Your task to perform on an android device: install app "Google Maps" Image 0: 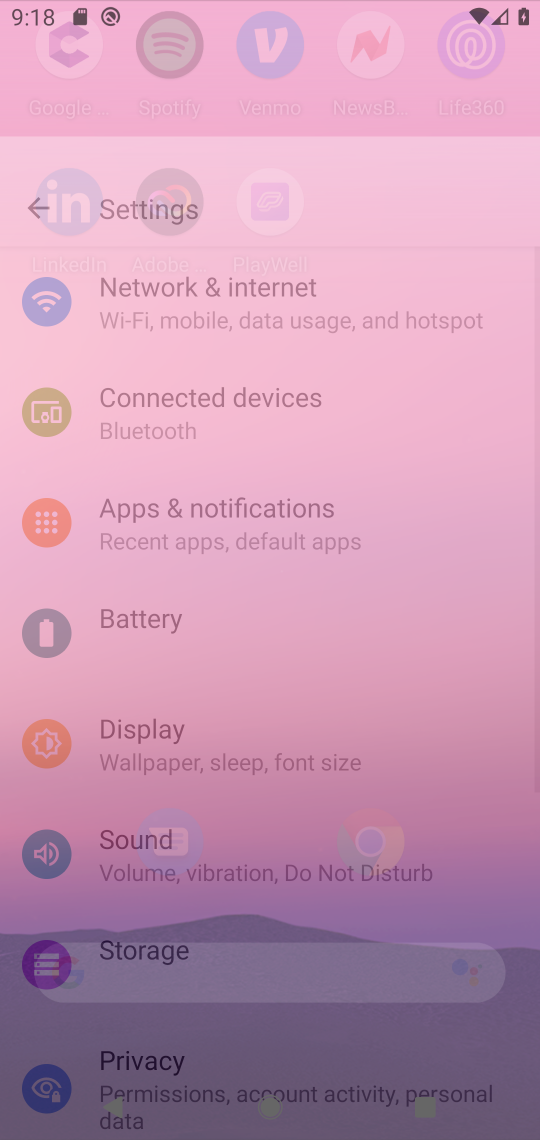
Step 0: press home button
Your task to perform on an android device: install app "Google Maps" Image 1: 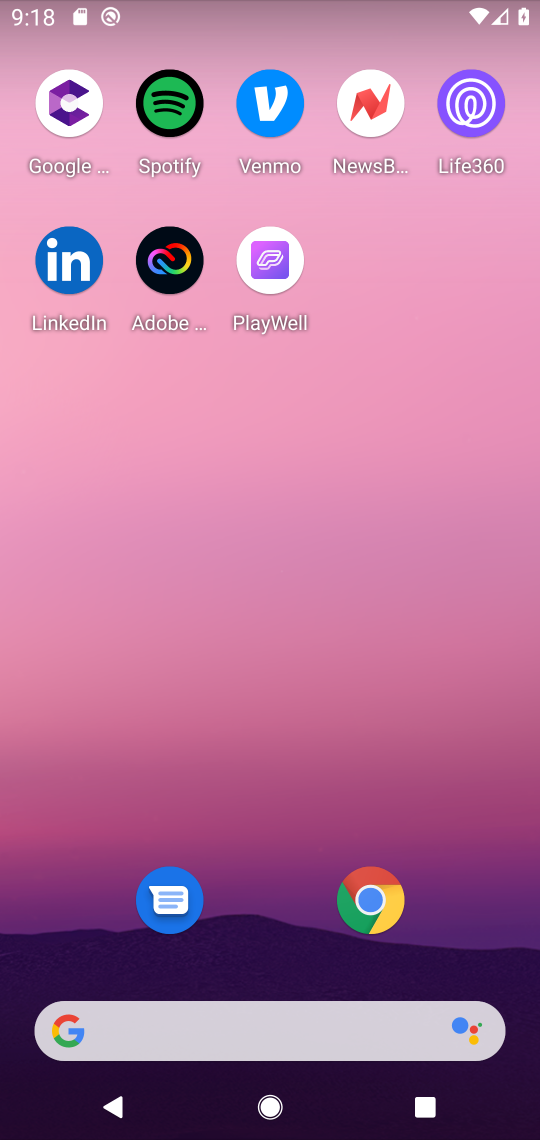
Step 1: task complete